Your task to perform on an android device: toggle javascript in the chrome app Image 0: 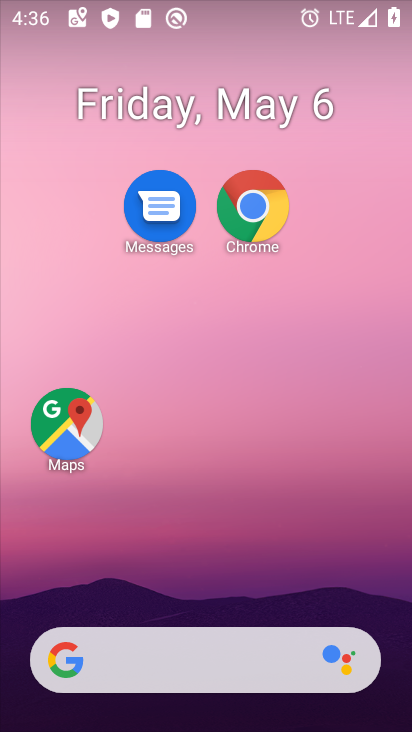
Step 0: click (248, 210)
Your task to perform on an android device: toggle javascript in the chrome app Image 1: 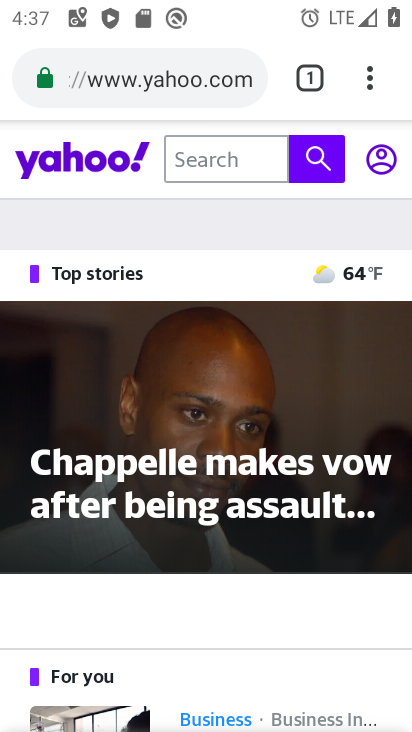
Step 1: click (371, 82)
Your task to perform on an android device: toggle javascript in the chrome app Image 2: 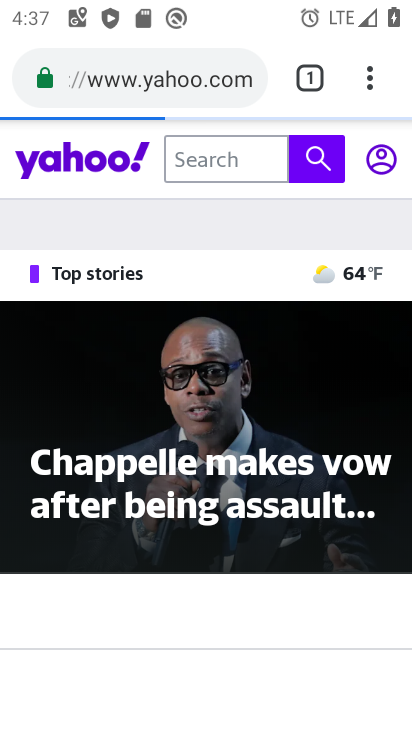
Step 2: click (371, 82)
Your task to perform on an android device: toggle javascript in the chrome app Image 3: 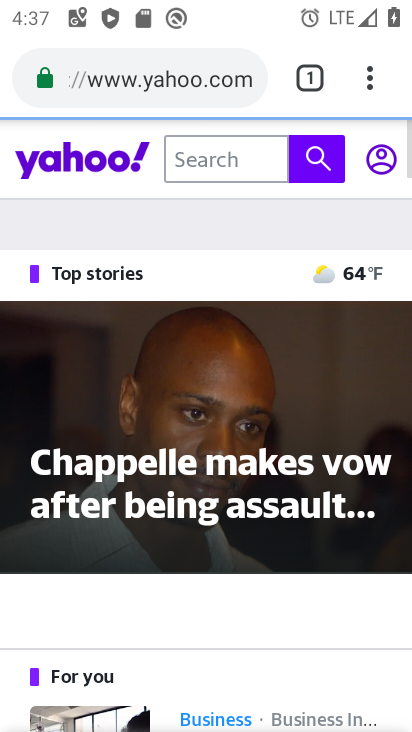
Step 3: click (371, 82)
Your task to perform on an android device: toggle javascript in the chrome app Image 4: 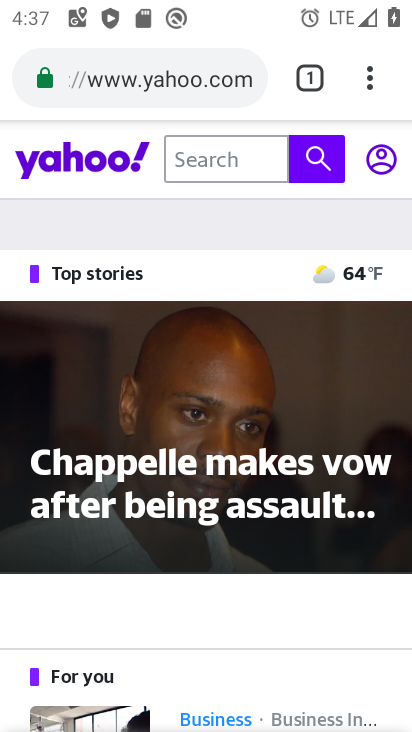
Step 4: click (372, 74)
Your task to perform on an android device: toggle javascript in the chrome app Image 5: 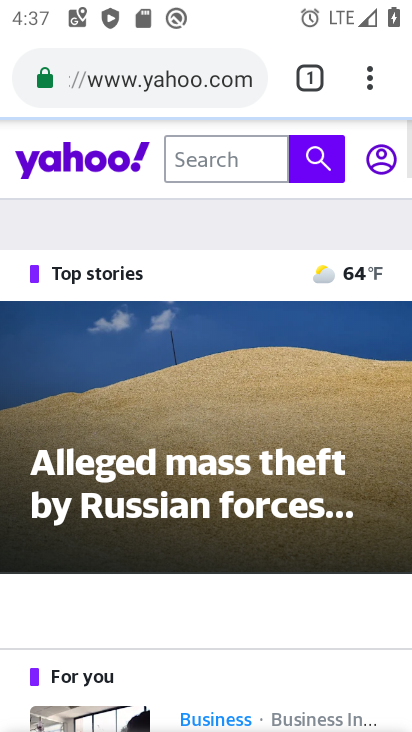
Step 5: click (372, 74)
Your task to perform on an android device: toggle javascript in the chrome app Image 6: 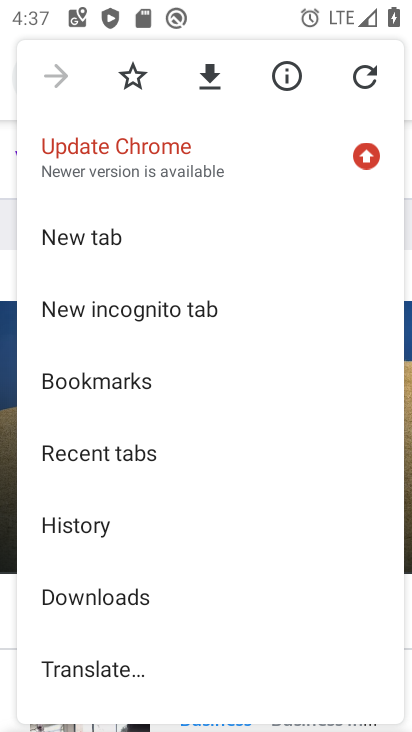
Step 6: drag from (109, 671) to (97, 357)
Your task to perform on an android device: toggle javascript in the chrome app Image 7: 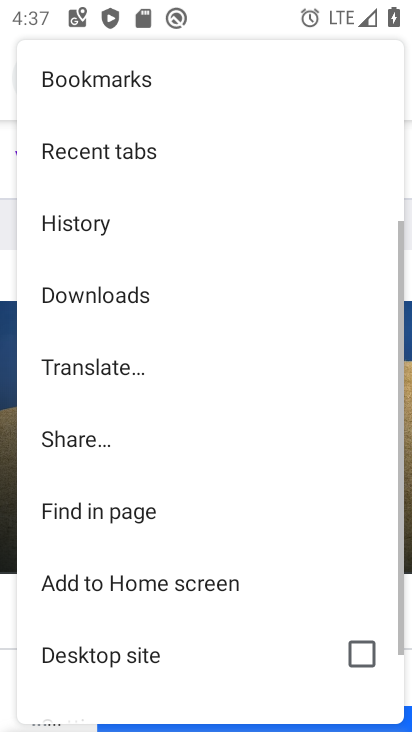
Step 7: drag from (88, 680) to (83, 322)
Your task to perform on an android device: toggle javascript in the chrome app Image 8: 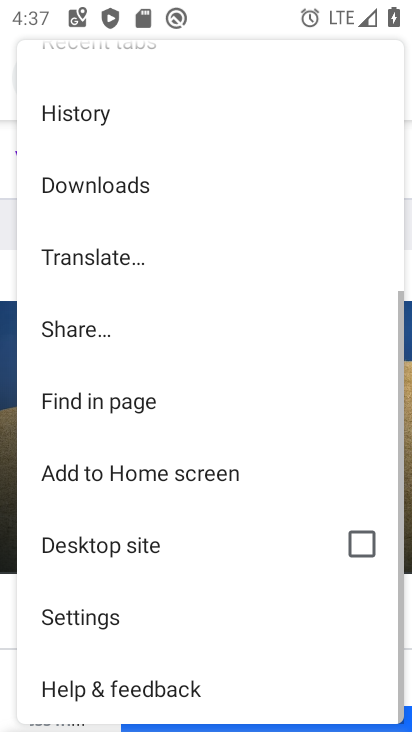
Step 8: click (91, 623)
Your task to perform on an android device: toggle javascript in the chrome app Image 9: 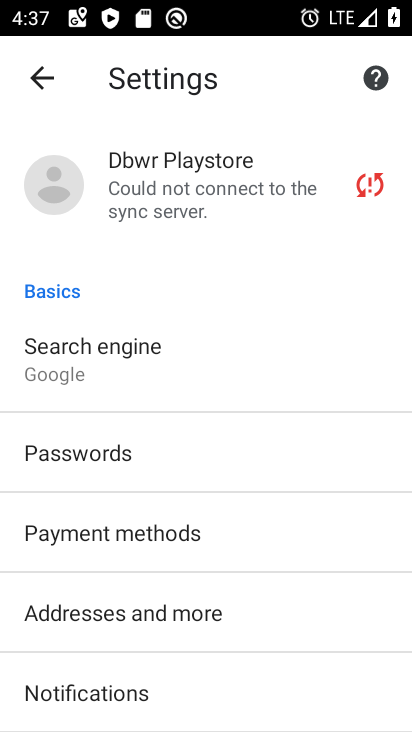
Step 9: drag from (145, 706) to (143, 302)
Your task to perform on an android device: toggle javascript in the chrome app Image 10: 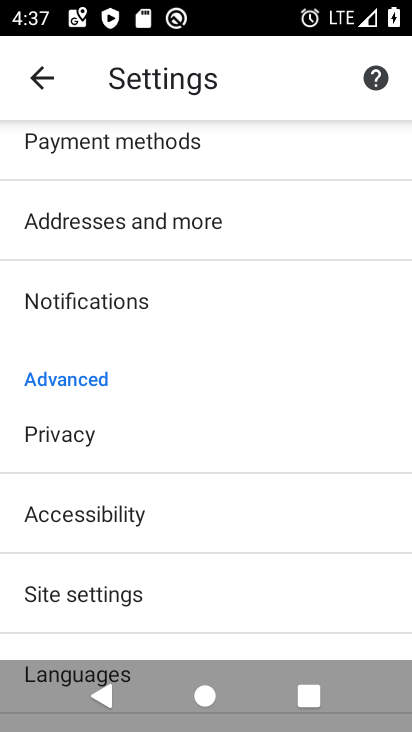
Step 10: click (83, 602)
Your task to perform on an android device: toggle javascript in the chrome app Image 11: 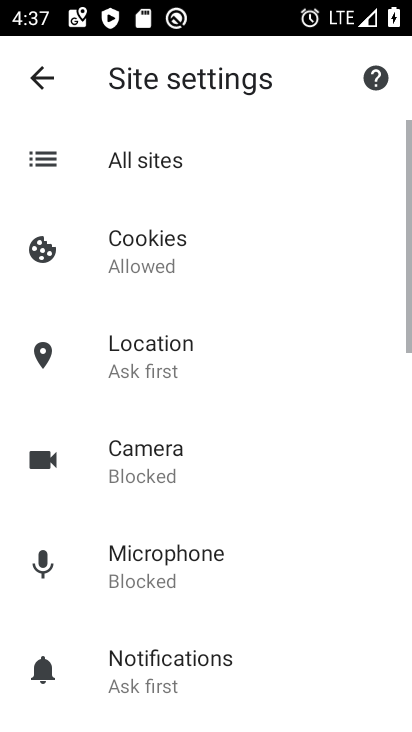
Step 11: drag from (161, 691) to (171, 343)
Your task to perform on an android device: toggle javascript in the chrome app Image 12: 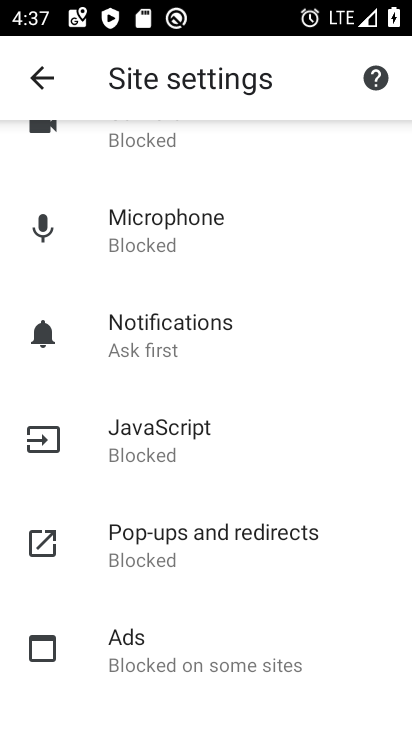
Step 12: click (125, 433)
Your task to perform on an android device: toggle javascript in the chrome app Image 13: 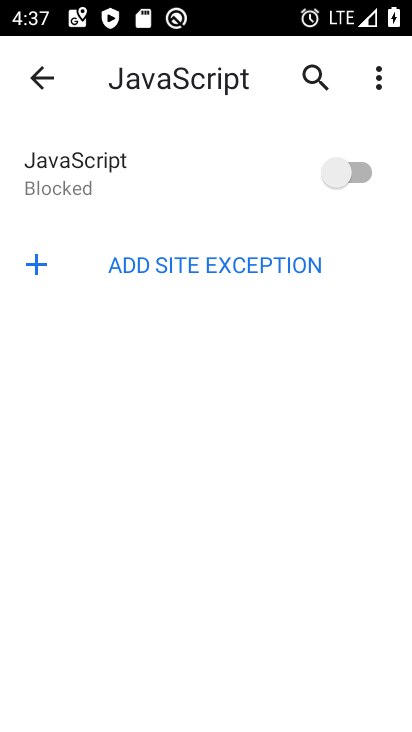
Step 13: click (361, 168)
Your task to perform on an android device: toggle javascript in the chrome app Image 14: 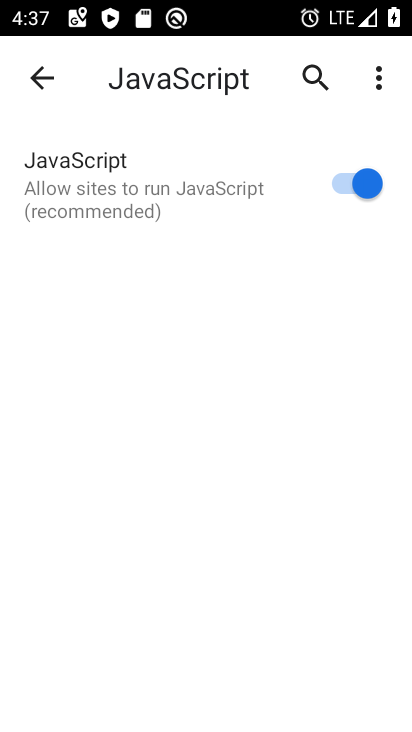
Step 14: task complete